Your task to perform on an android device: Go to Reddit.com Image 0: 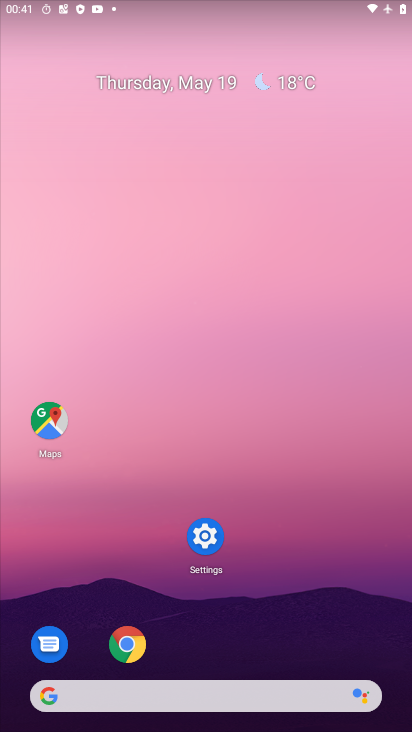
Step 0: click (128, 655)
Your task to perform on an android device: Go to Reddit.com Image 1: 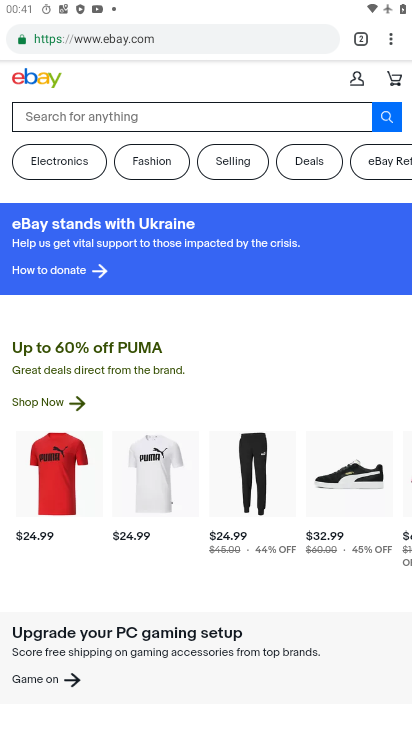
Step 1: click (188, 40)
Your task to perform on an android device: Go to Reddit.com Image 2: 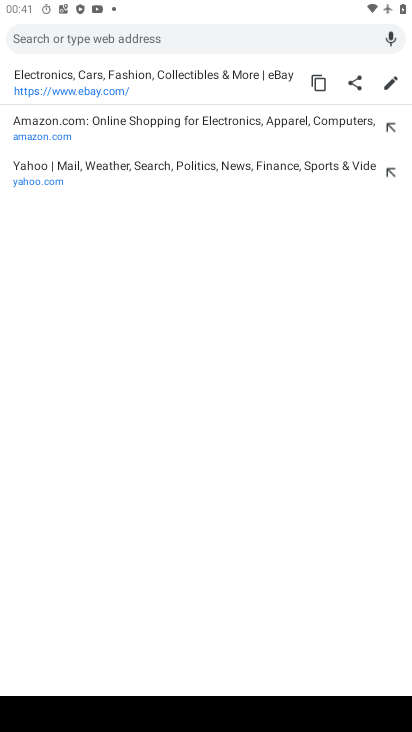
Step 2: type "reddit.com"
Your task to perform on an android device: Go to Reddit.com Image 3: 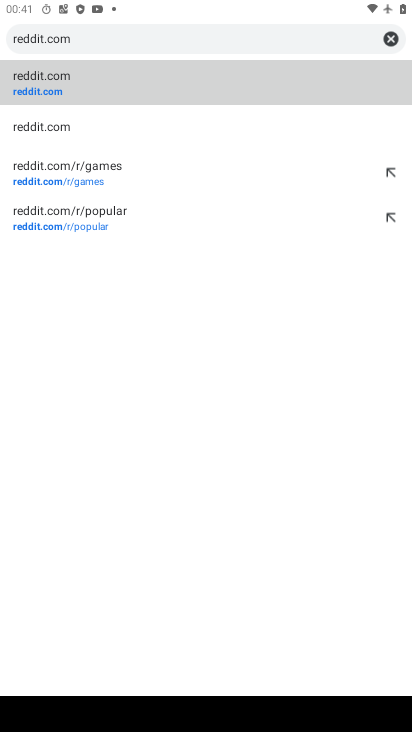
Step 3: click (44, 93)
Your task to perform on an android device: Go to Reddit.com Image 4: 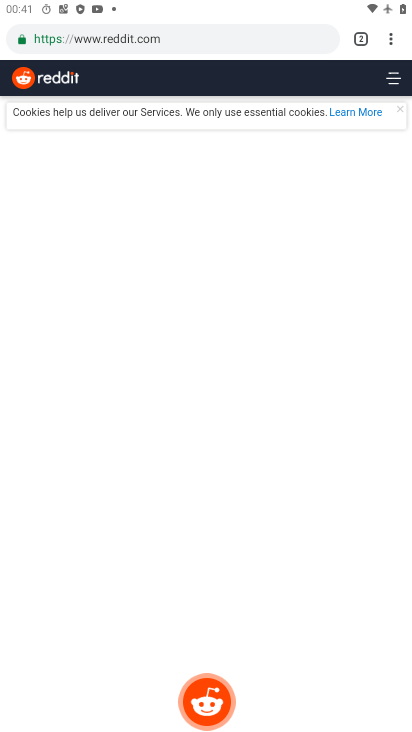
Step 4: task complete